Your task to perform on an android device: read, delete, or share a saved page in the chrome app Image 0: 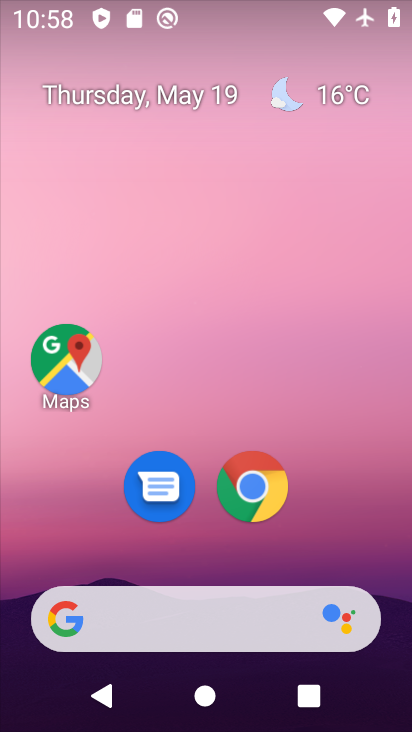
Step 0: click (281, 464)
Your task to perform on an android device: read, delete, or share a saved page in the chrome app Image 1: 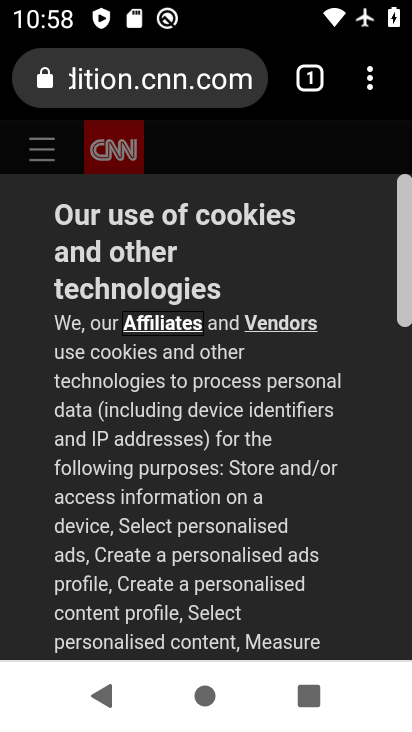
Step 1: click (364, 98)
Your task to perform on an android device: read, delete, or share a saved page in the chrome app Image 2: 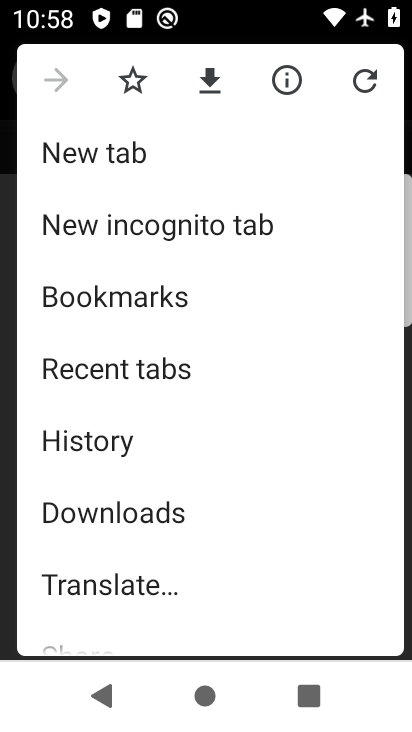
Step 2: click (116, 514)
Your task to perform on an android device: read, delete, or share a saved page in the chrome app Image 3: 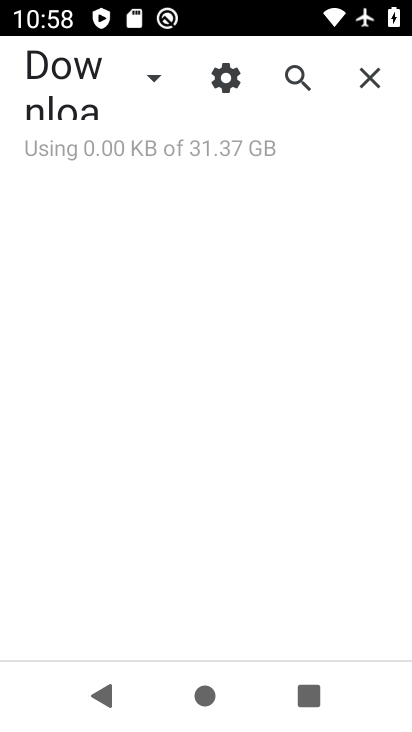
Step 3: task complete